Your task to perform on an android device: turn on priority inbox in the gmail app Image 0: 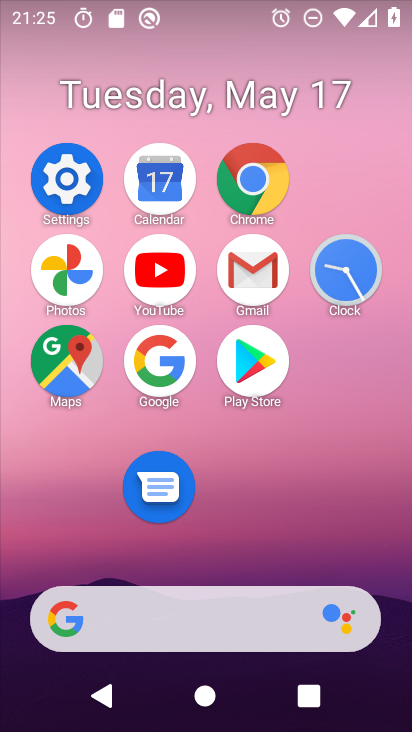
Step 0: click (261, 267)
Your task to perform on an android device: turn on priority inbox in the gmail app Image 1: 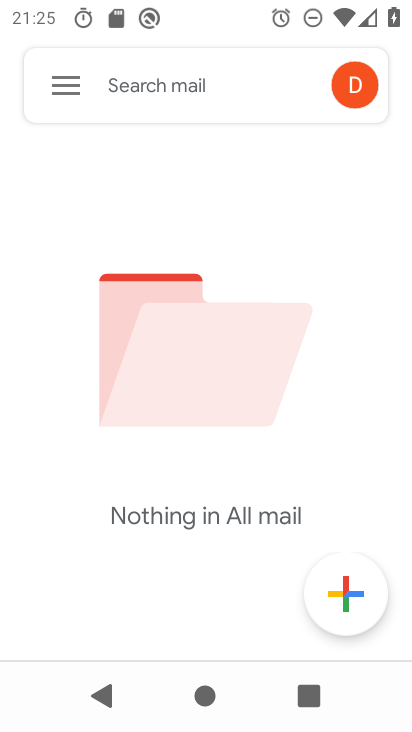
Step 1: click (63, 77)
Your task to perform on an android device: turn on priority inbox in the gmail app Image 2: 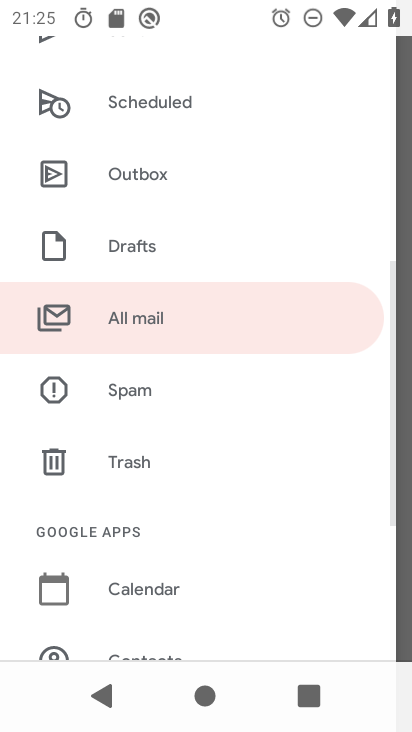
Step 2: drag from (184, 539) to (193, 150)
Your task to perform on an android device: turn on priority inbox in the gmail app Image 3: 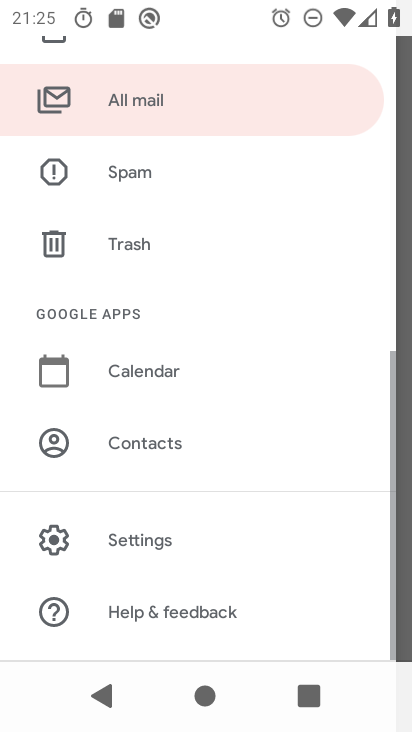
Step 3: click (177, 521)
Your task to perform on an android device: turn on priority inbox in the gmail app Image 4: 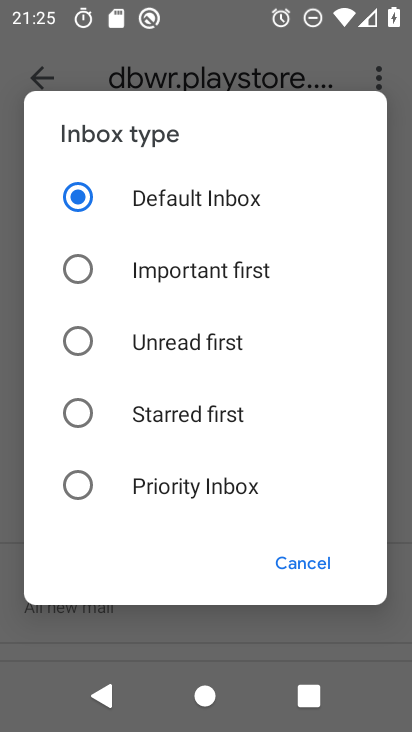
Step 4: click (180, 496)
Your task to perform on an android device: turn on priority inbox in the gmail app Image 5: 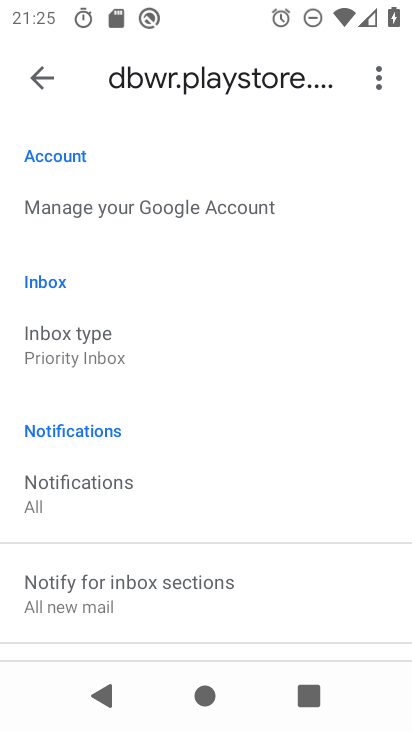
Step 5: task complete